Your task to perform on an android device: Open Chrome and go to settings Image 0: 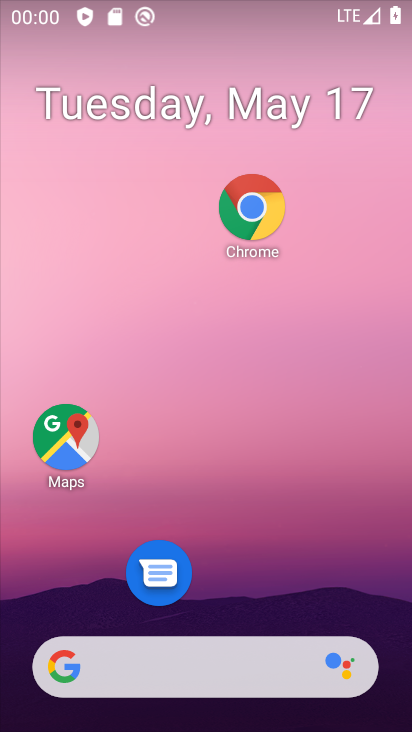
Step 0: drag from (179, 644) to (204, 4)
Your task to perform on an android device: Open Chrome and go to settings Image 1: 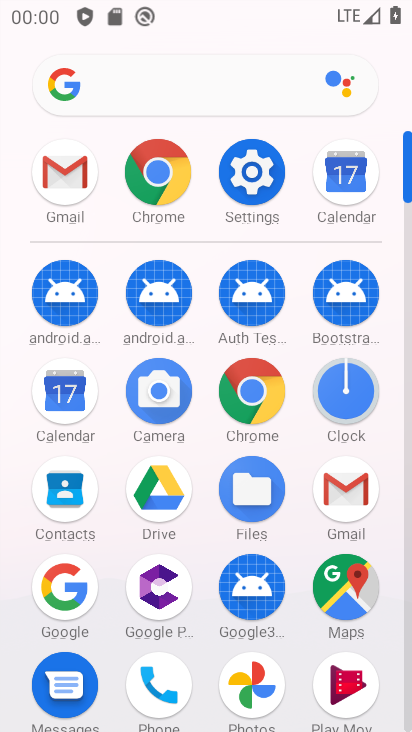
Step 1: click (229, 388)
Your task to perform on an android device: Open Chrome and go to settings Image 2: 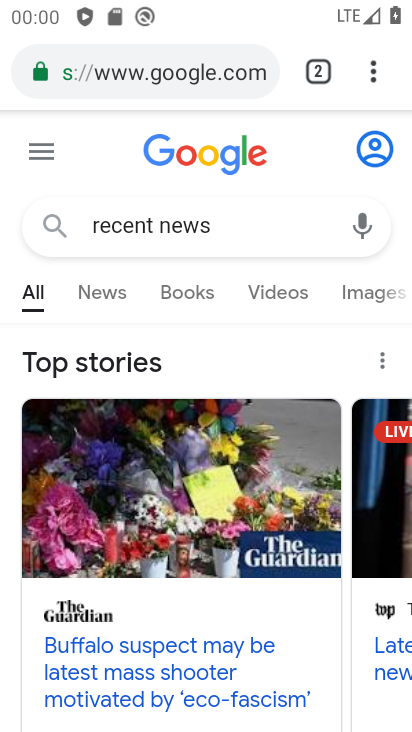
Step 2: click (376, 76)
Your task to perform on an android device: Open Chrome and go to settings Image 3: 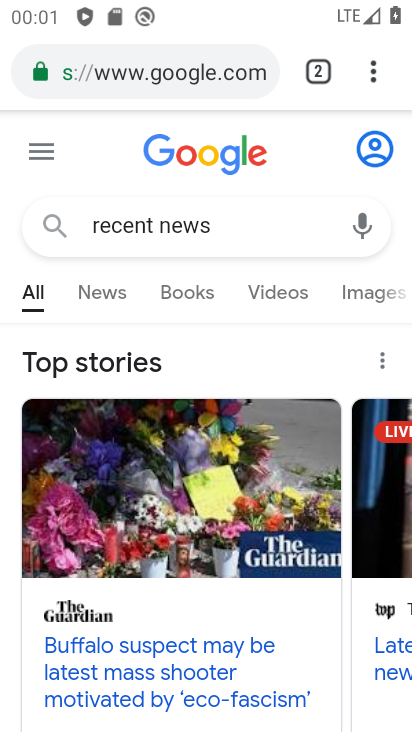
Step 3: task complete